Your task to perform on an android device: check battery use Image 0: 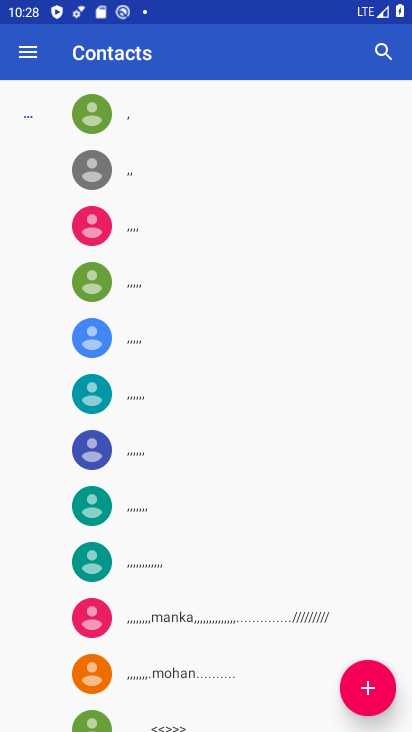
Step 0: press home button
Your task to perform on an android device: check battery use Image 1: 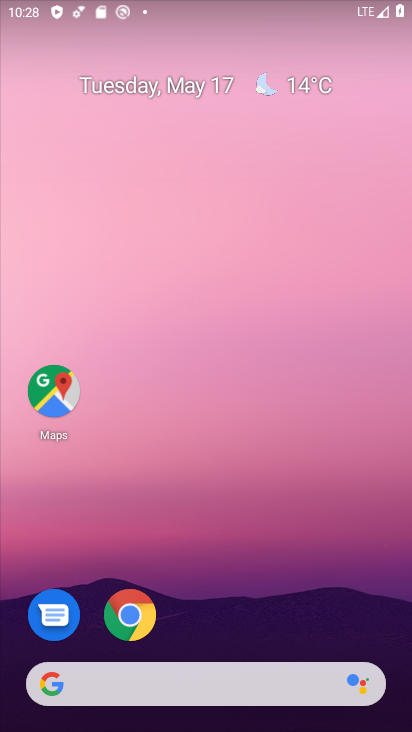
Step 1: drag from (190, 654) to (286, 77)
Your task to perform on an android device: check battery use Image 2: 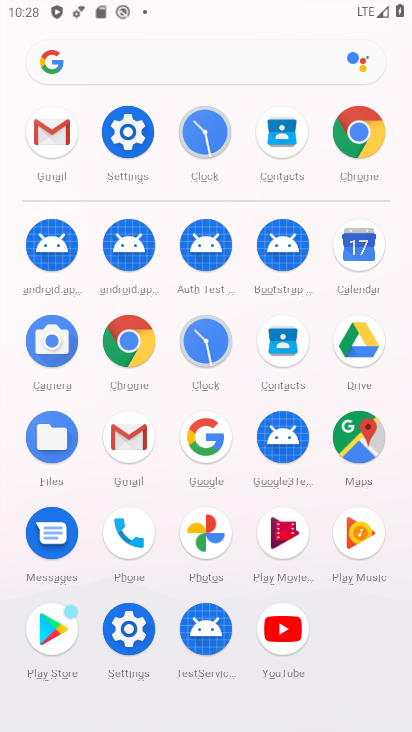
Step 2: click (105, 141)
Your task to perform on an android device: check battery use Image 3: 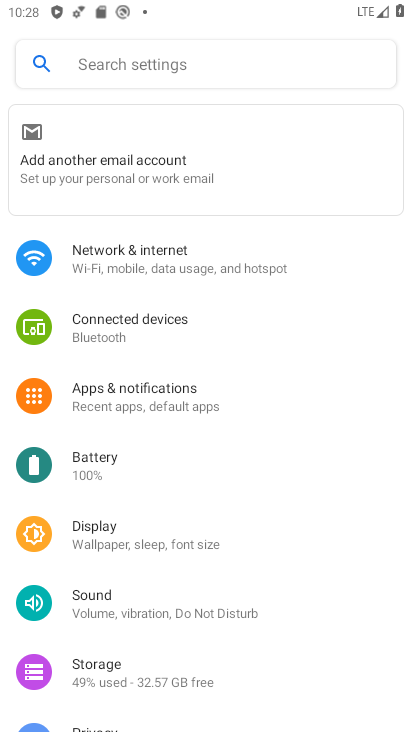
Step 3: click (94, 465)
Your task to perform on an android device: check battery use Image 4: 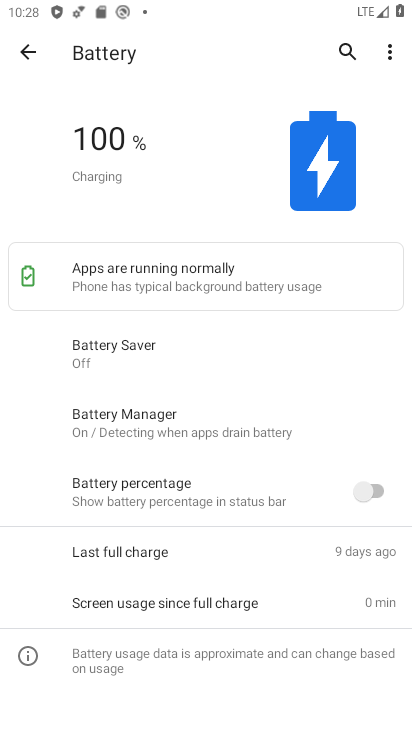
Step 4: click (393, 50)
Your task to perform on an android device: check battery use Image 5: 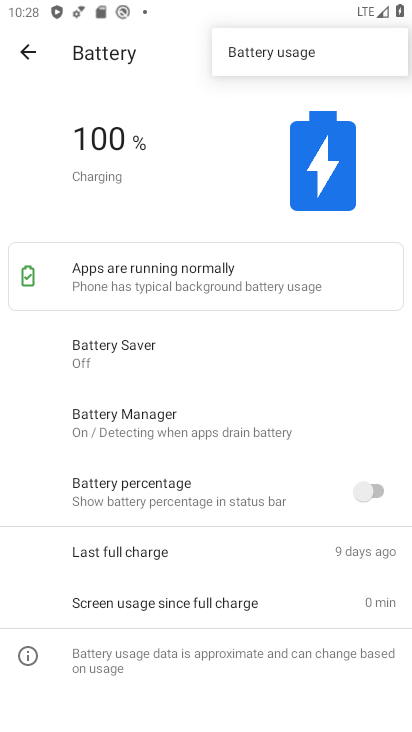
Step 5: click (329, 51)
Your task to perform on an android device: check battery use Image 6: 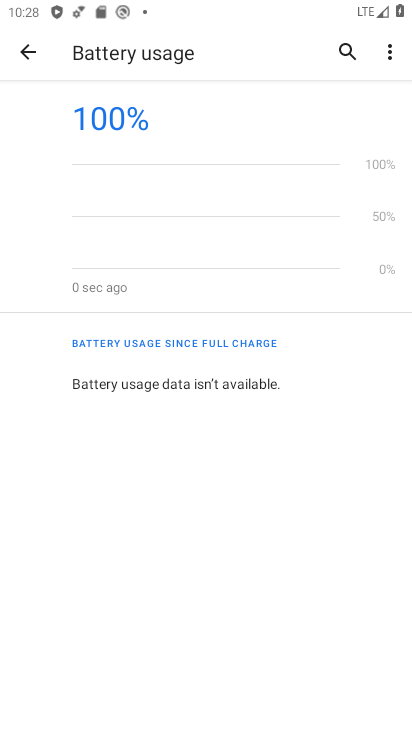
Step 6: task complete